Your task to perform on an android device: Go to Google Image 0: 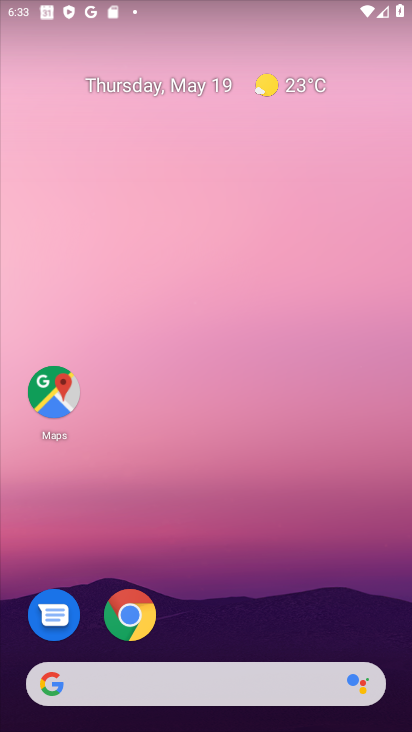
Step 0: drag from (316, 628) to (332, 7)
Your task to perform on an android device: Go to Google Image 1: 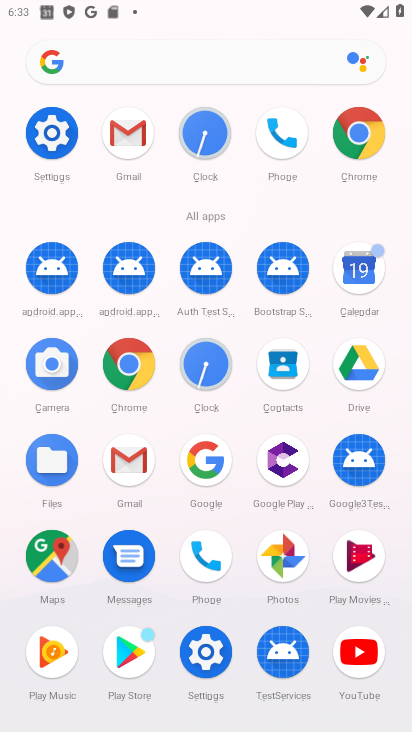
Step 1: click (201, 451)
Your task to perform on an android device: Go to Google Image 2: 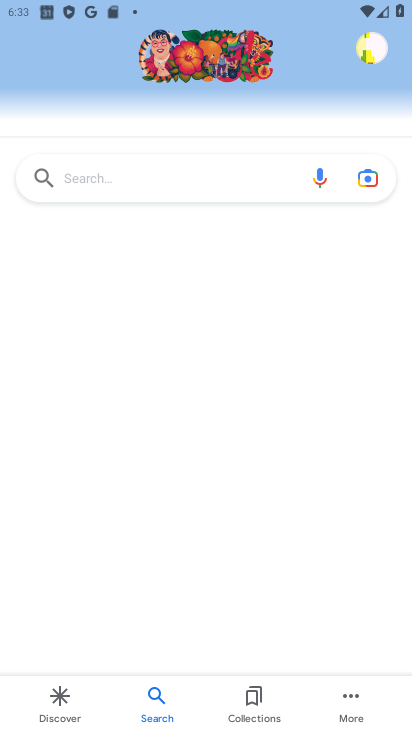
Step 2: task complete